Your task to perform on an android device: install app "Firefox Browser" Image 0: 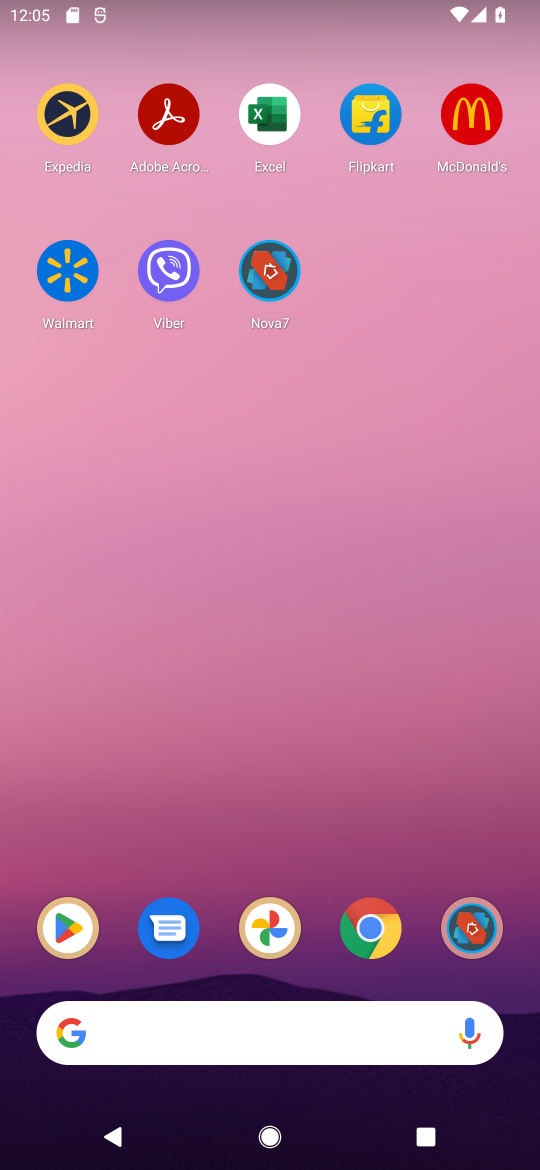
Step 0: drag from (419, 819) to (399, 55)
Your task to perform on an android device: install app "Firefox Browser" Image 1: 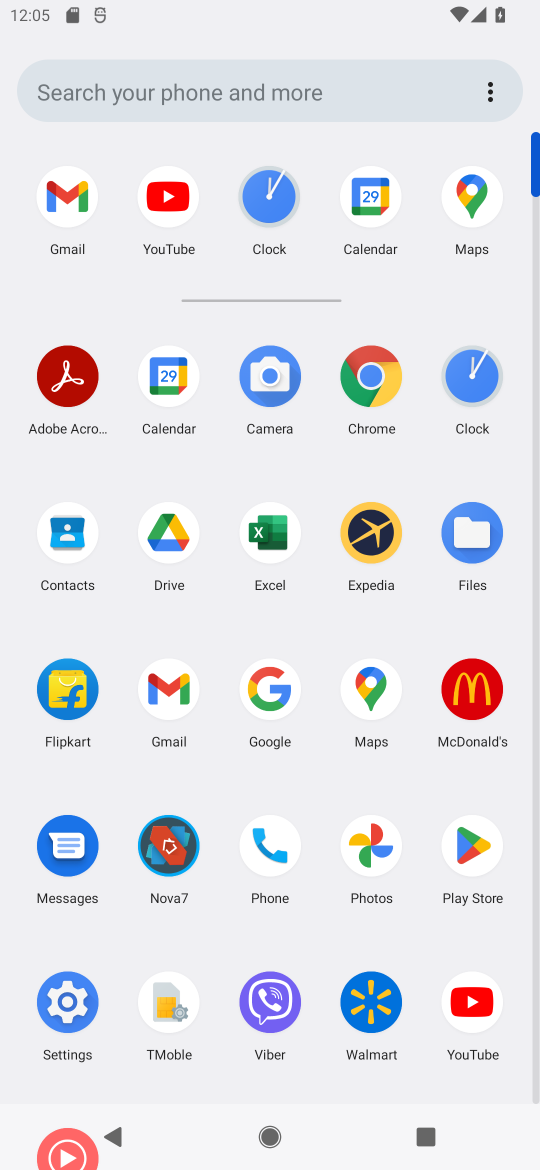
Step 1: click (483, 836)
Your task to perform on an android device: install app "Firefox Browser" Image 2: 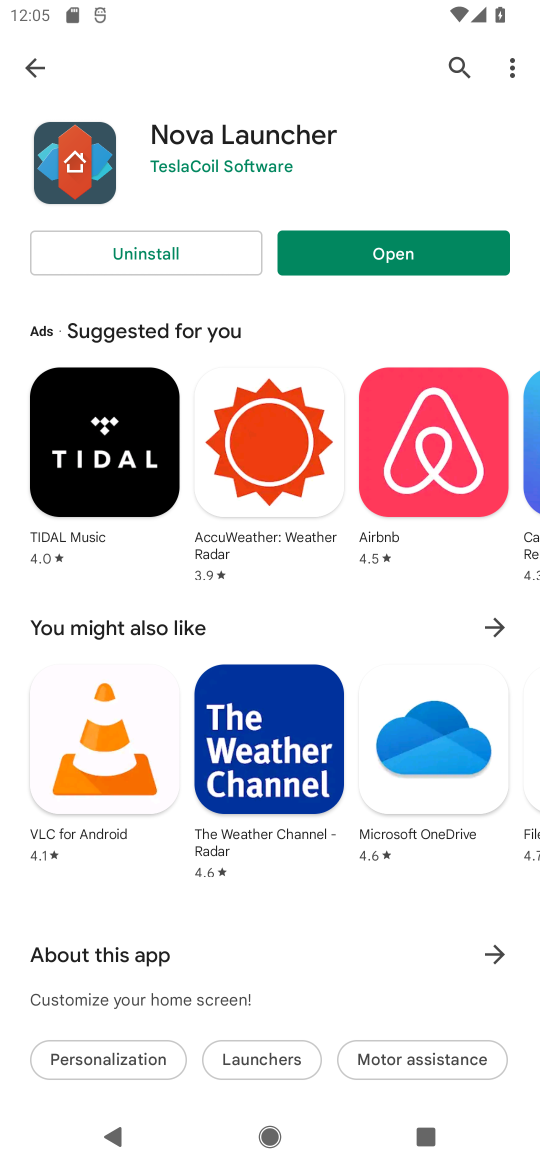
Step 2: click (459, 61)
Your task to perform on an android device: install app "Firefox Browser" Image 3: 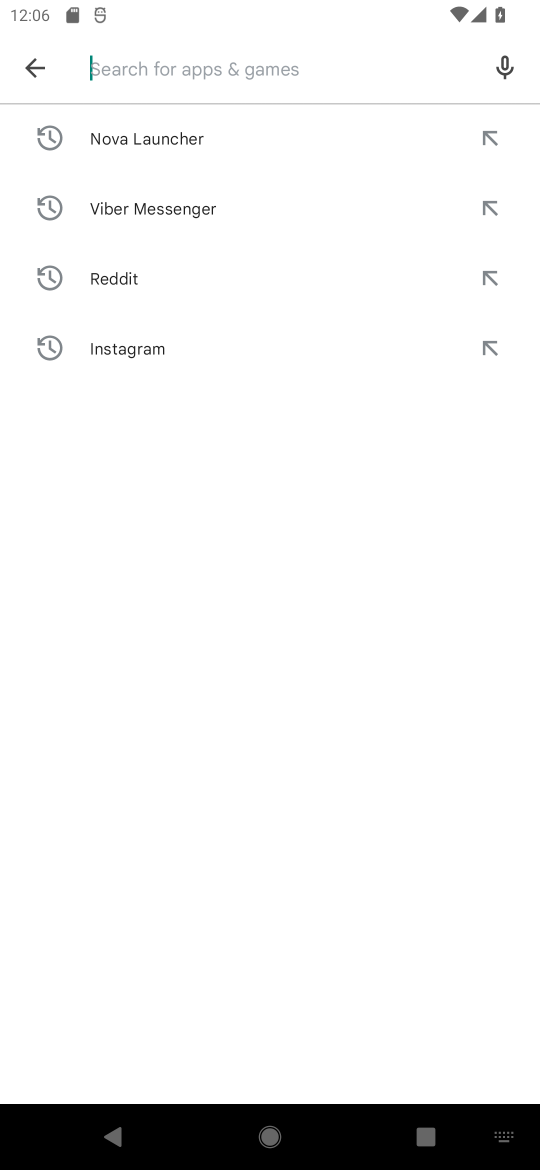
Step 3: type "Firefox Browser"
Your task to perform on an android device: install app "Firefox Browser" Image 4: 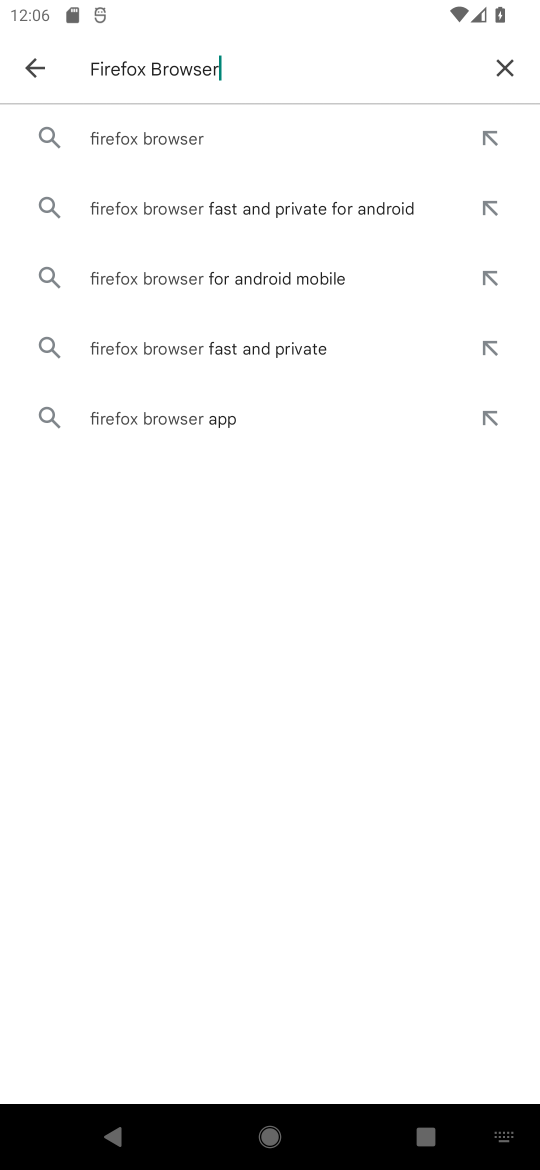
Step 4: press enter
Your task to perform on an android device: install app "Firefox Browser" Image 5: 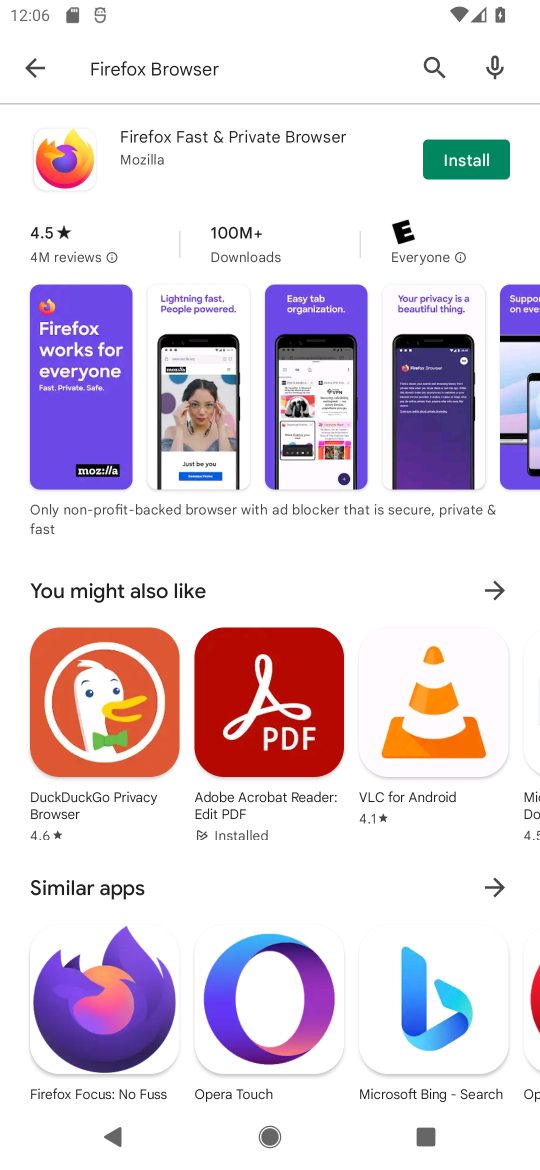
Step 5: click (477, 160)
Your task to perform on an android device: install app "Firefox Browser" Image 6: 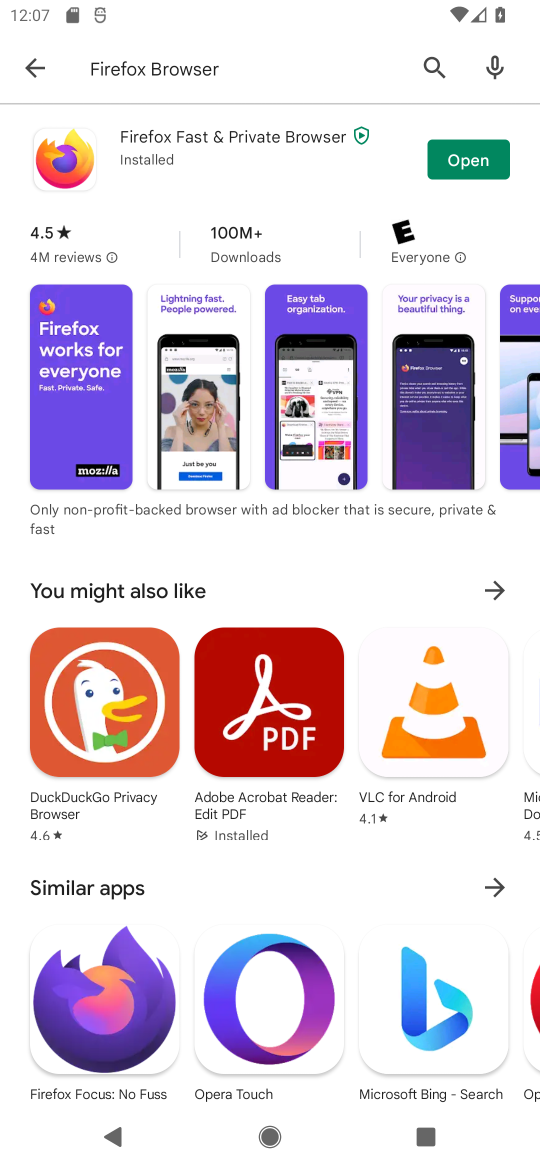
Step 6: task complete